Your task to perform on an android device: Is it going to rain this weekend? Image 0: 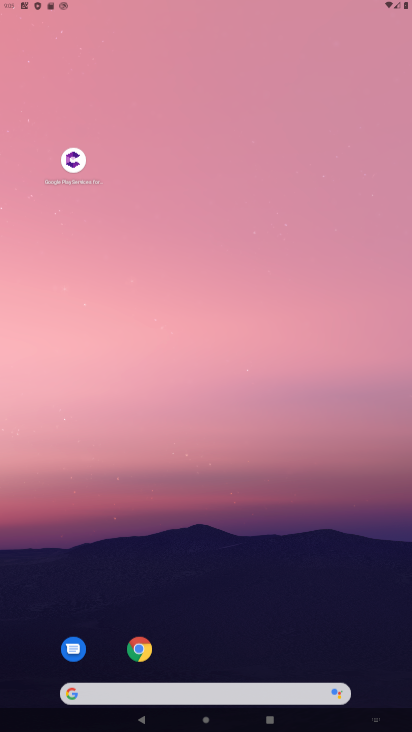
Step 0: press home button
Your task to perform on an android device: Is it going to rain this weekend? Image 1: 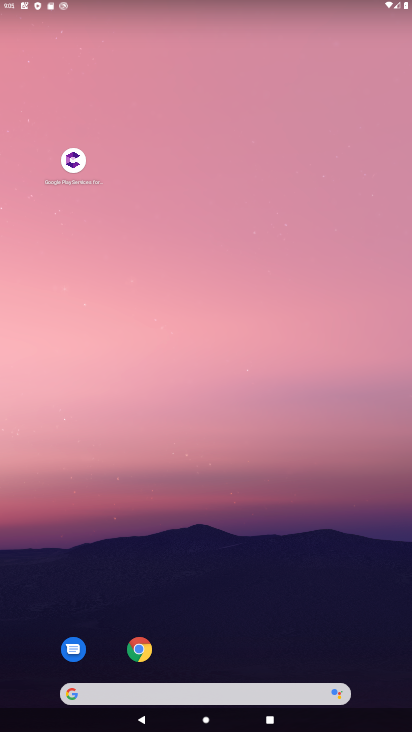
Step 1: click (238, 696)
Your task to perform on an android device: Is it going to rain this weekend? Image 2: 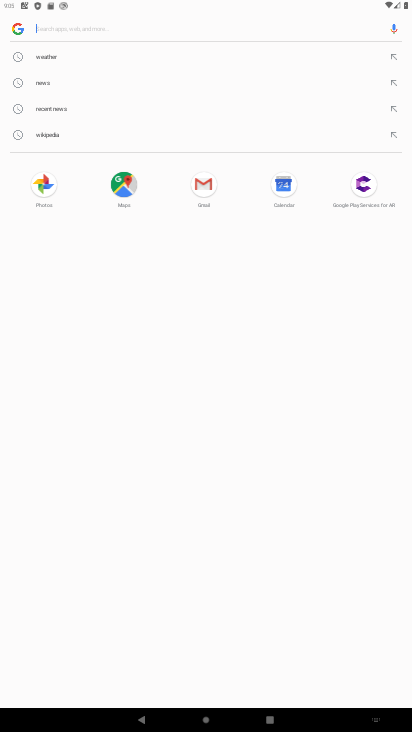
Step 2: type "weather"
Your task to perform on an android device: Is it going to rain this weekend? Image 3: 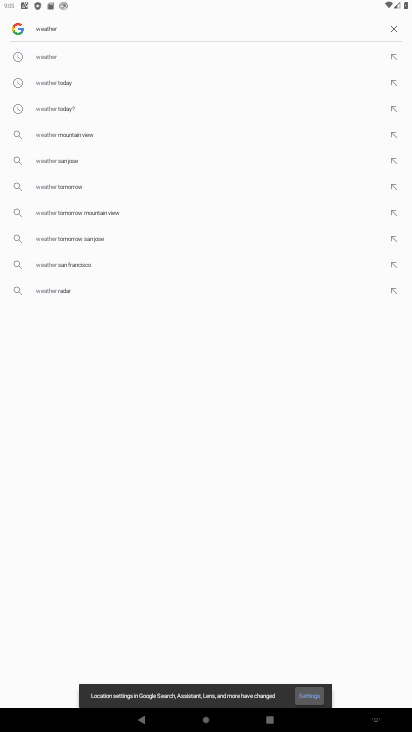
Step 3: drag from (79, 425) to (120, 108)
Your task to perform on an android device: Is it going to rain this weekend? Image 4: 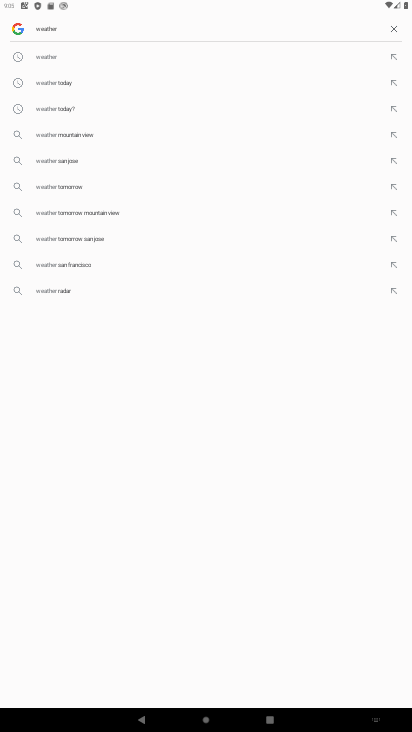
Step 4: click (57, 59)
Your task to perform on an android device: Is it going to rain this weekend? Image 5: 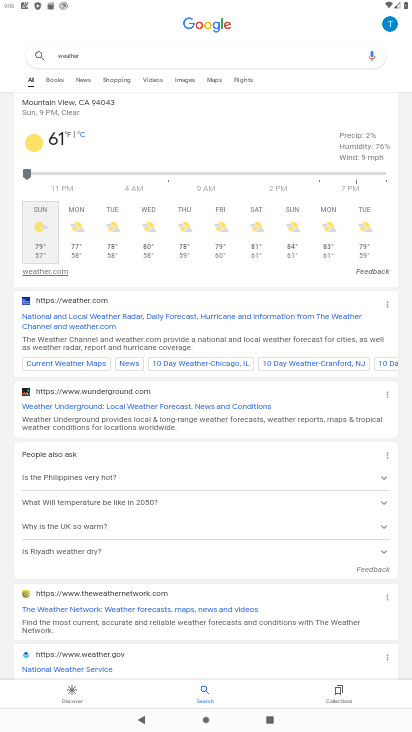
Step 5: click (258, 221)
Your task to perform on an android device: Is it going to rain this weekend? Image 6: 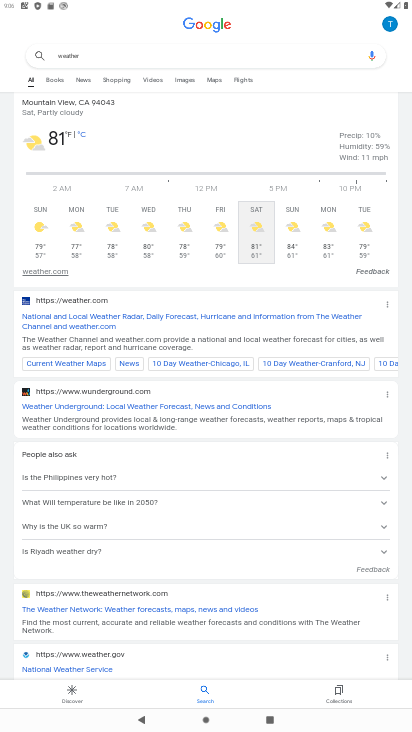
Step 6: task complete